Your task to perform on an android device: delete the emails in spam in the gmail app Image 0: 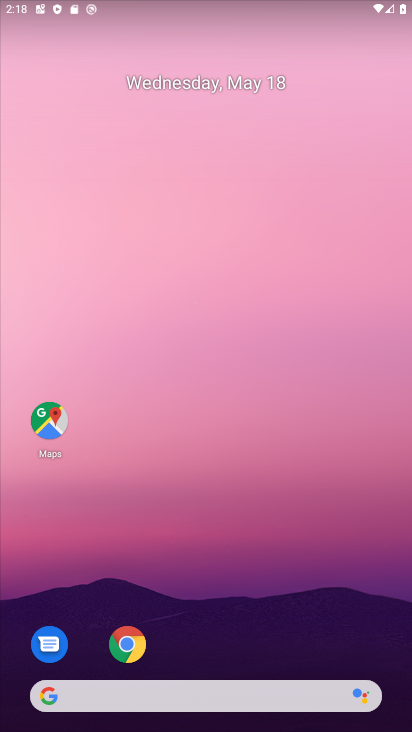
Step 0: drag from (224, 717) to (212, 280)
Your task to perform on an android device: delete the emails in spam in the gmail app Image 1: 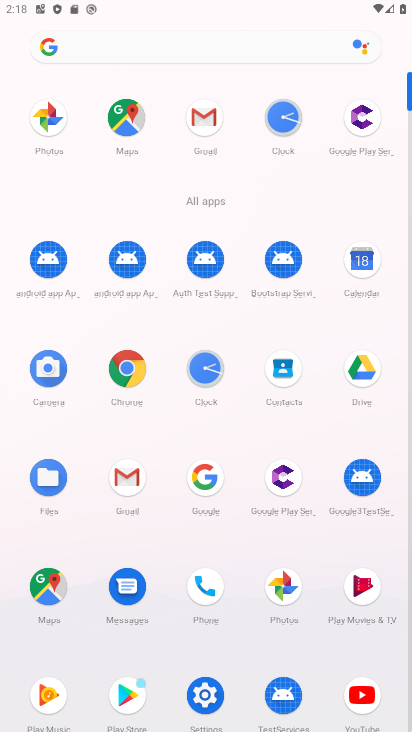
Step 1: click (196, 128)
Your task to perform on an android device: delete the emails in spam in the gmail app Image 2: 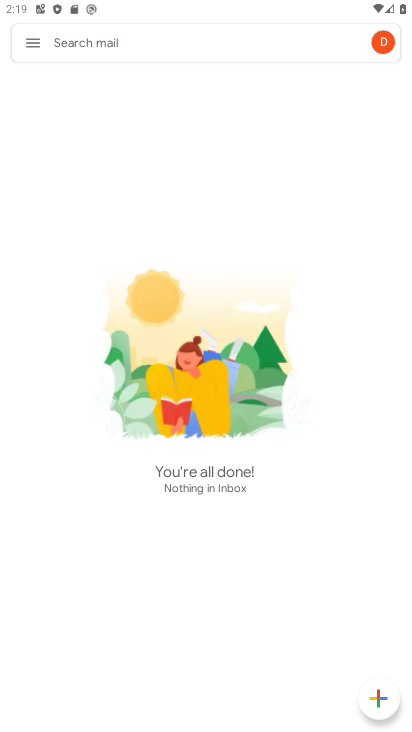
Step 2: task complete